Your task to perform on an android device: What is the recent news? Image 0: 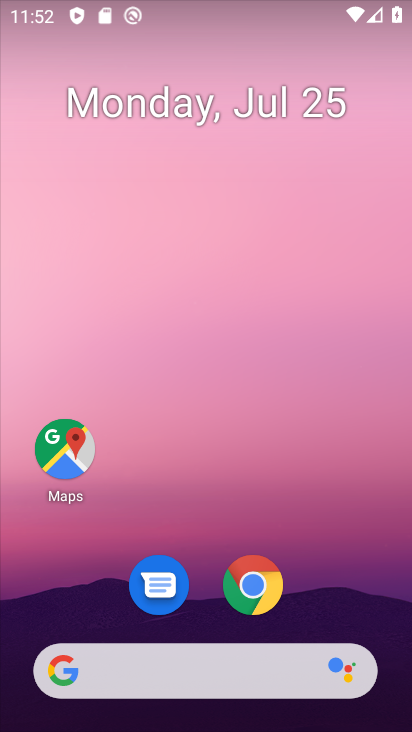
Step 0: click (223, 685)
Your task to perform on an android device: What is the recent news? Image 1: 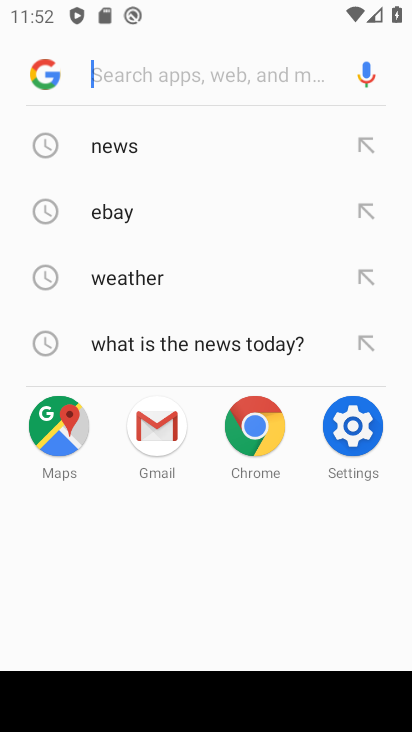
Step 1: click (111, 132)
Your task to perform on an android device: What is the recent news? Image 2: 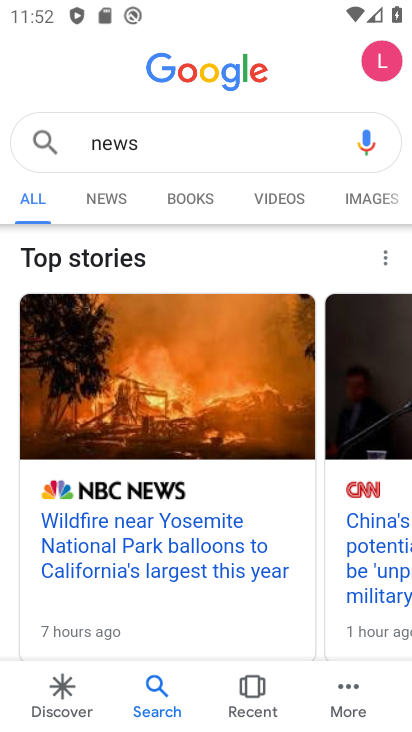
Step 2: task complete